Your task to perform on an android device: Show me recent news Image 0: 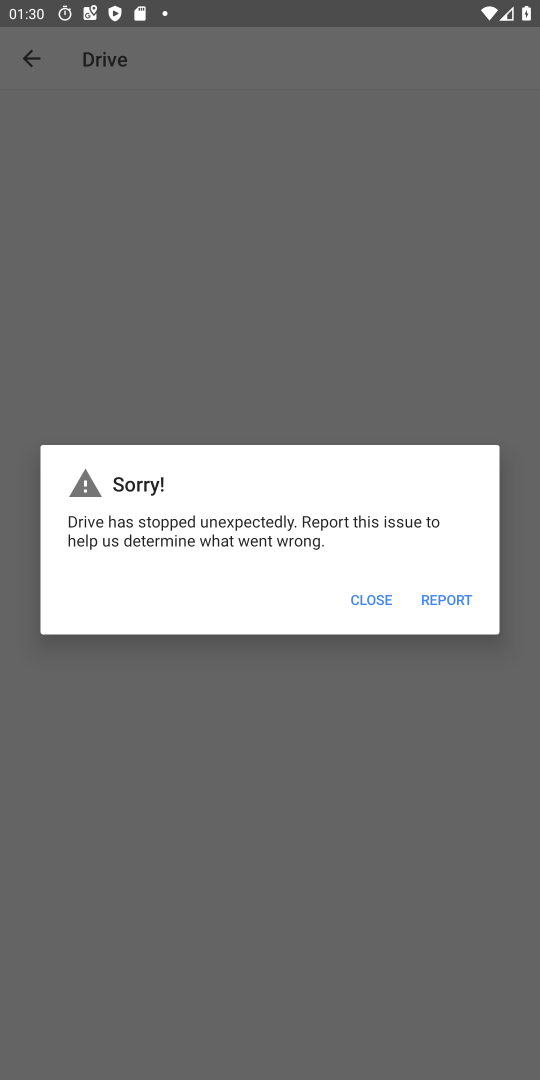
Step 0: press home button
Your task to perform on an android device: Show me recent news Image 1: 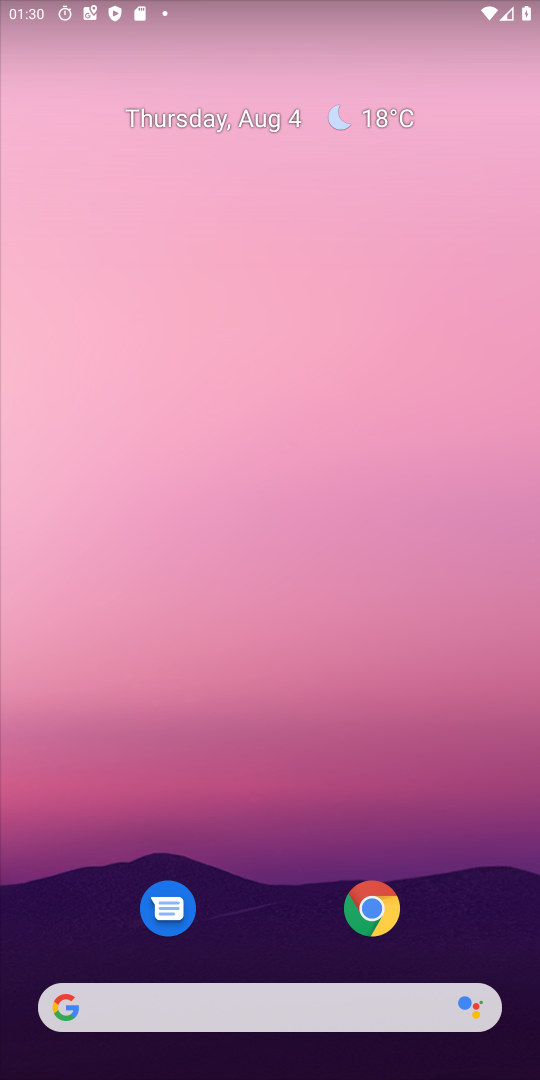
Step 1: click (225, 1009)
Your task to perform on an android device: Show me recent news Image 2: 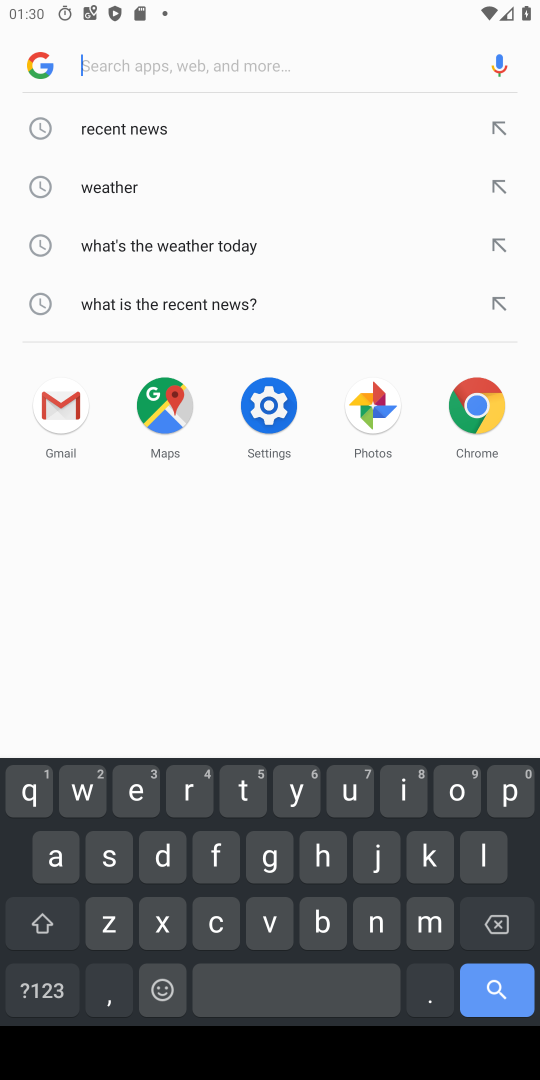
Step 2: click (174, 145)
Your task to perform on an android device: Show me recent news Image 3: 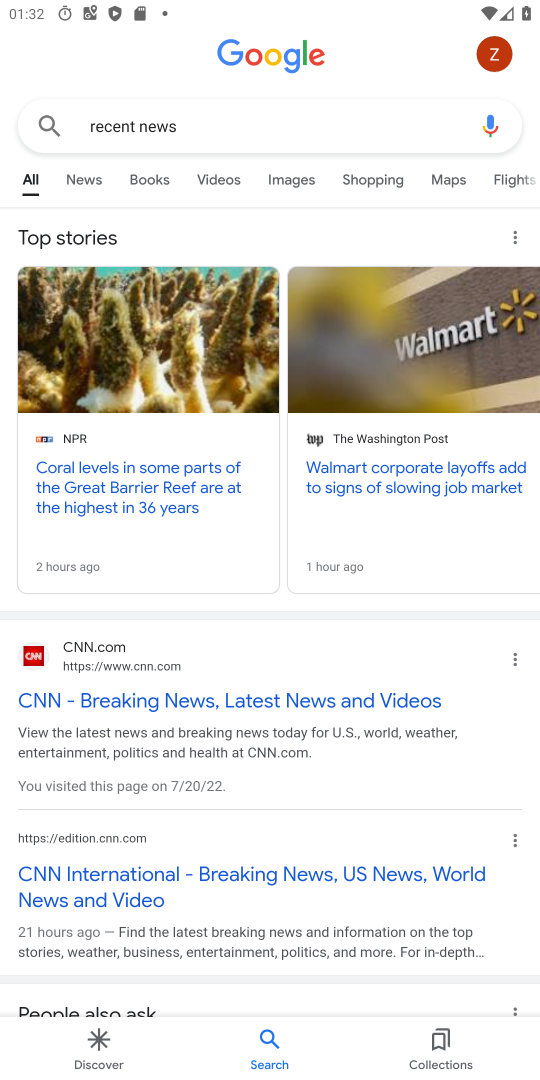
Step 3: task complete